Your task to perform on an android device: turn notification dots off Image 0: 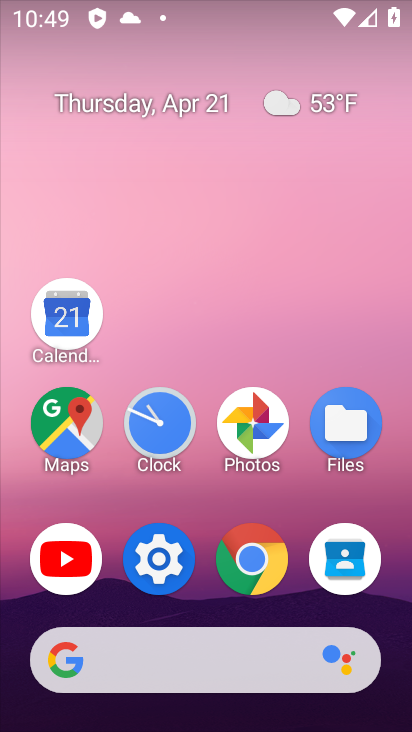
Step 0: click (161, 552)
Your task to perform on an android device: turn notification dots off Image 1: 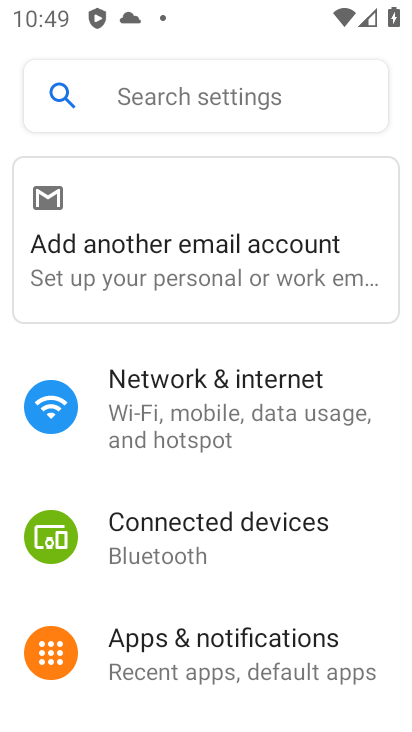
Step 1: click (214, 642)
Your task to perform on an android device: turn notification dots off Image 2: 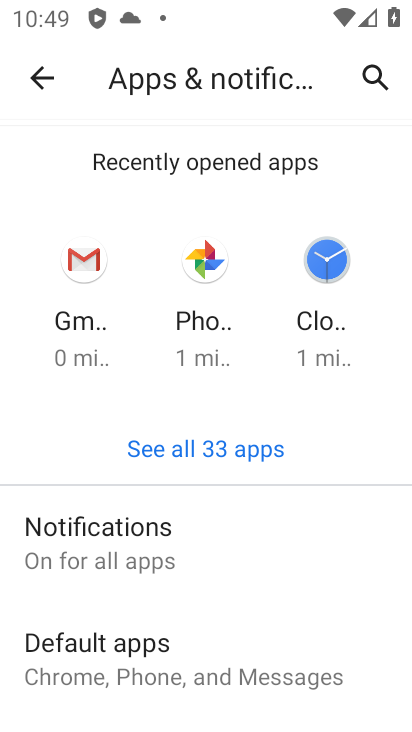
Step 2: drag from (315, 516) to (315, 121)
Your task to perform on an android device: turn notification dots off Image 3: 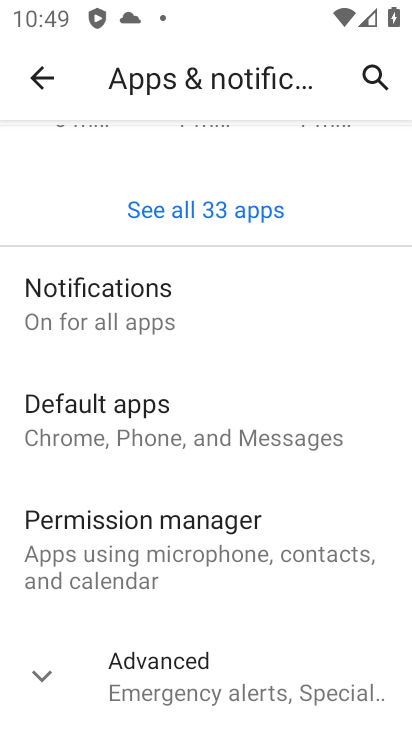
Step 3: click (90, 294)
Your task to perform on an android device: turn notification dots off Image 4: 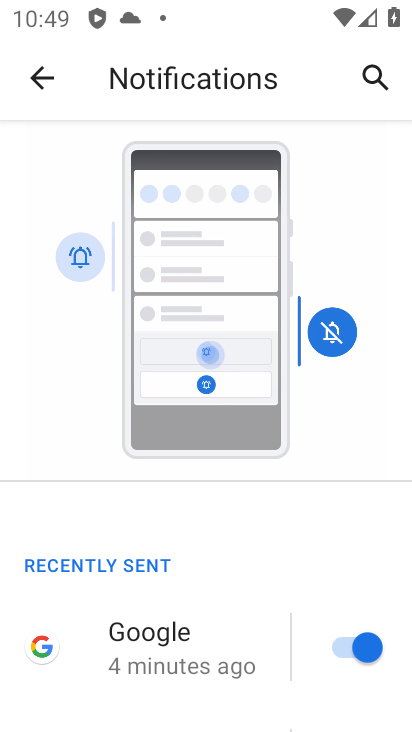
Step 4: drag from (271, 555) to (289, 78)
Your task to perform on an android device: turn notification dots off Image 5: 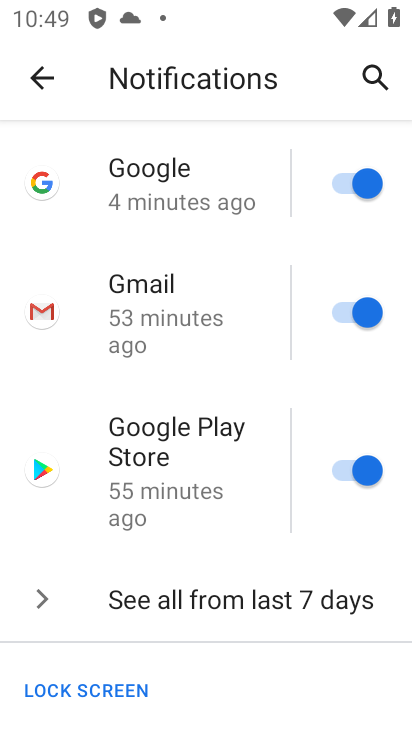
Step 5: drag from (275, 650) to (226, 99)
Your task to perform on an android device: turn notification dots off Image 6: 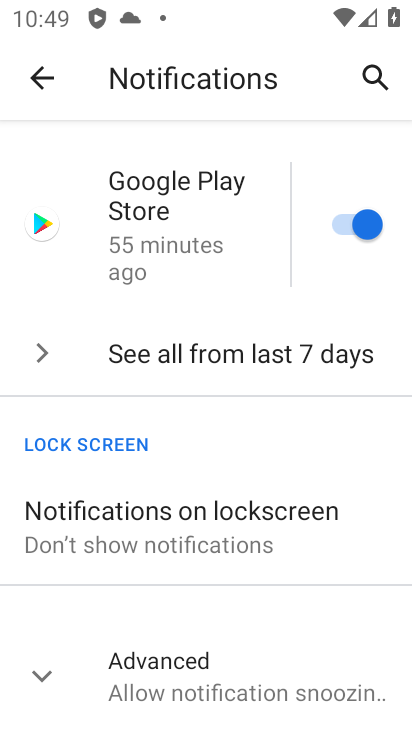
Step 6: click (42, 669)
Your task to perform on an android device: turn notification dots off Image 7: 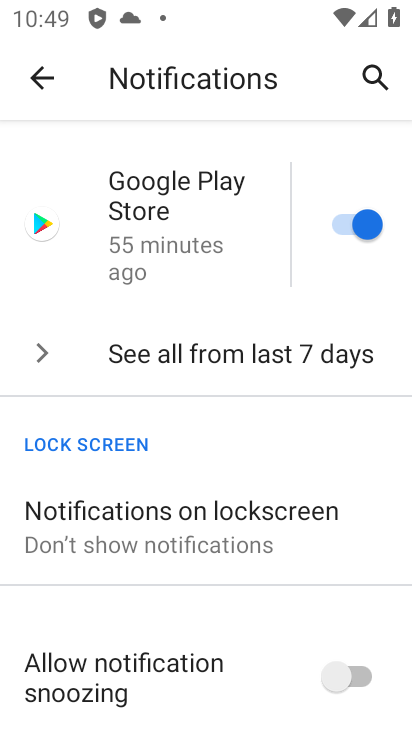
Step 7: drag from (193, 604) to (192, 284)
Your task to perform on an android device: turn notification dots off Image 8: 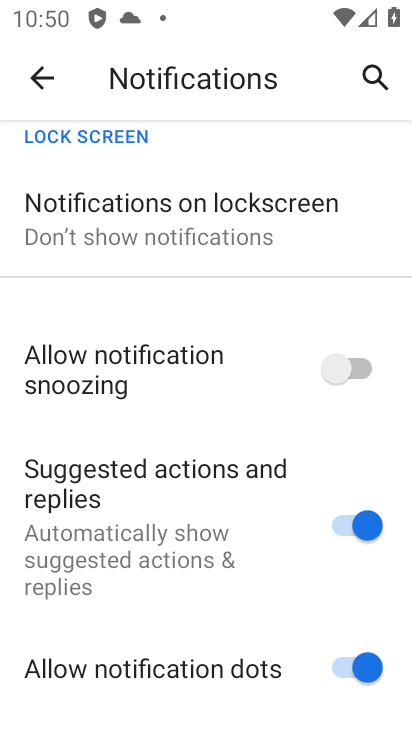
Step 8: click (356, 672)
Your task to perform on an android device: turn notification dots off Image 9: 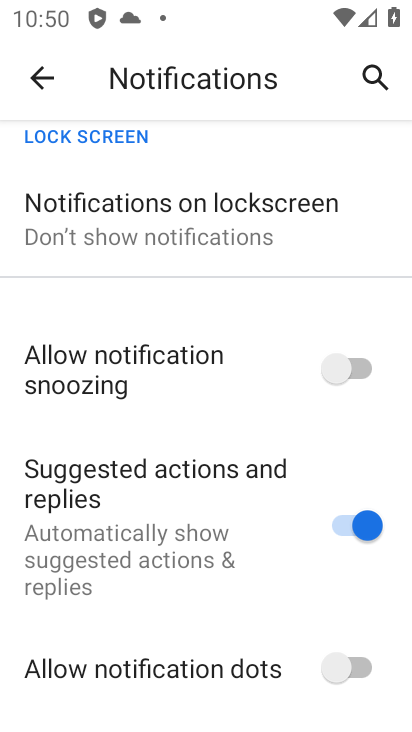
Step 9: task complete